Your task to perform on an android device: Go to calendar. Show me events next week Image 0: 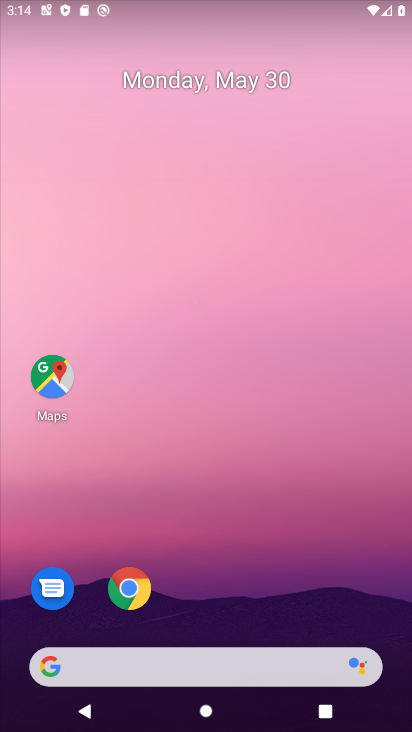
Step 0: drag from (271, 522) to (263, 6)
Your task to perform on an android device: Go to calendar. Show me events next week Image 1: 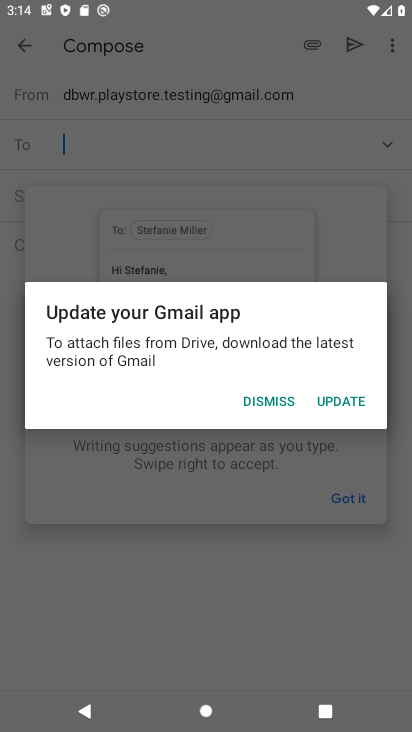
Step 1: drag from (12, 603) to (2, 309)
Your task to perform on an android device: Go to calendar. Show me events next week Image 2: 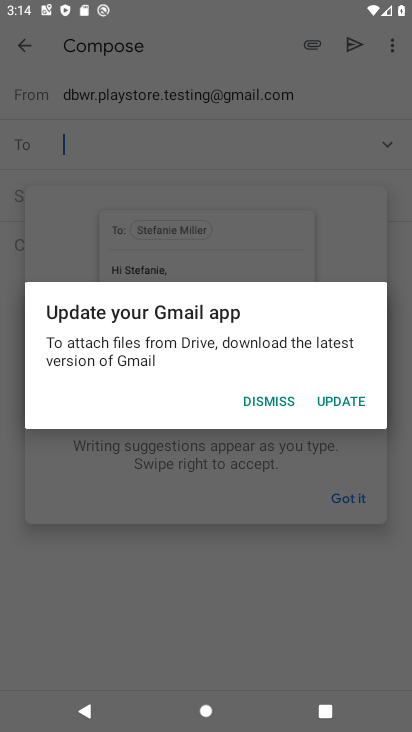
Step 2: press back button
Your task to perform on an android device: Go to calendar. Show me events next week Image 3: 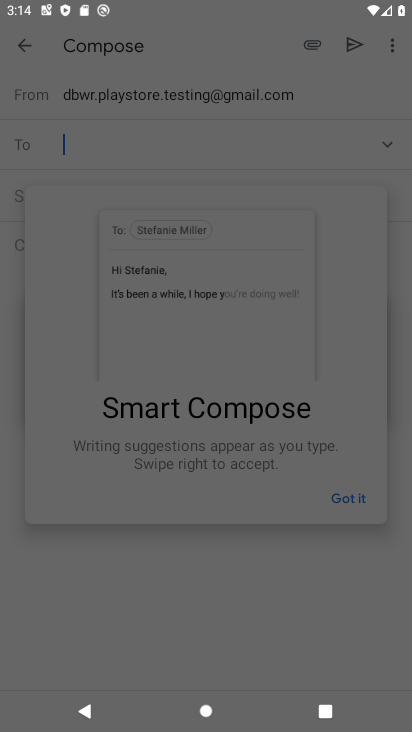
Step 3: press back button
Your task to perform on an android device: Go to calendar. Show me events next week Image 4: 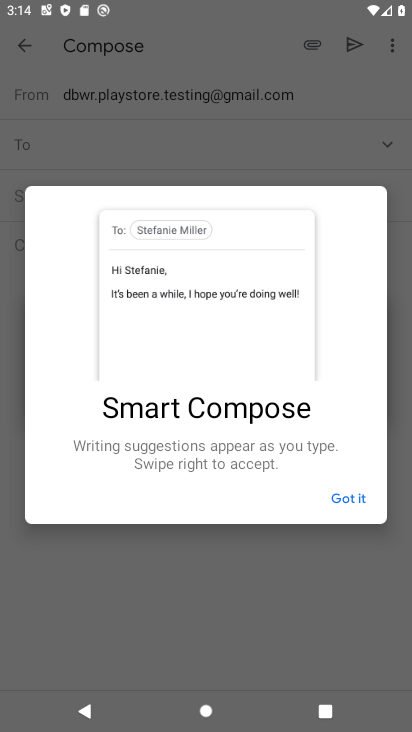
Step 4: press home button
Your task to perform on an android device: Go to calendar. Show me events next week Image 5: 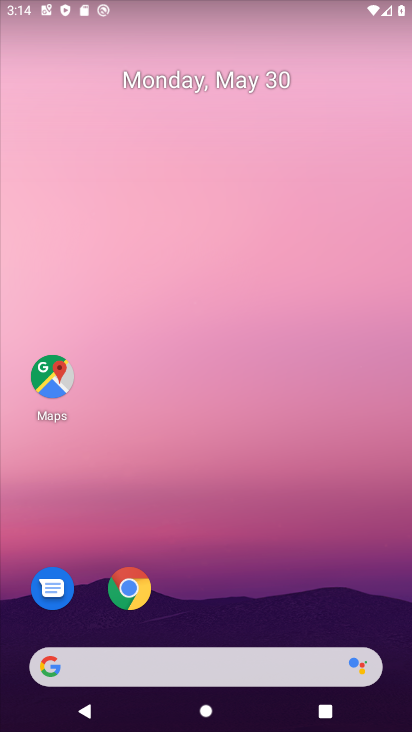
Step 5: drag from (260, 593) to (243, 36)
Your task to perform on an android device: Go to calendar. Show me events next week Image 6: 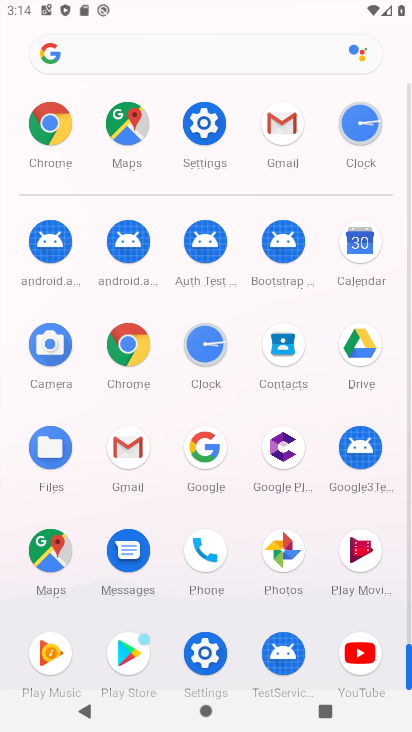
Step 6: drag from (8, 591) to (25, 387)
Your task to perform on an android device: Go to calendar. Show me events next week Image 7: 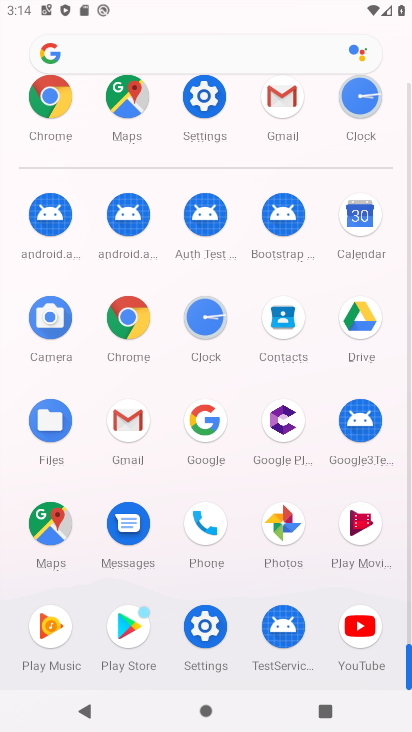
Step 7: click (357, 212)
Your task to perform on an android device: Go to calendar. Show me events next week Image 8: 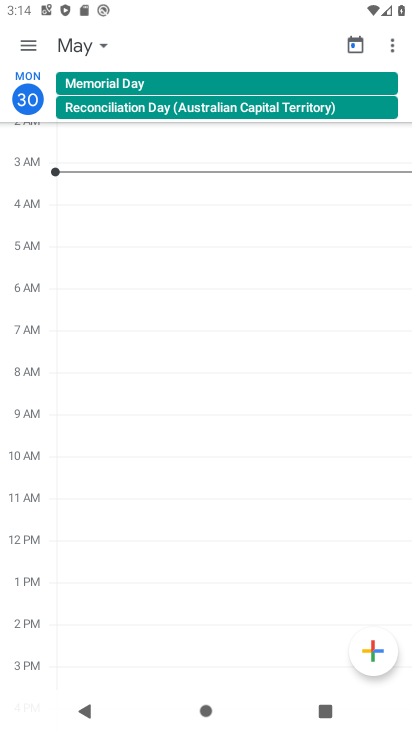
Step 8: click (35, 41)
Your task to perform on an android device: Go to calendar. Show me events next week Image 9: 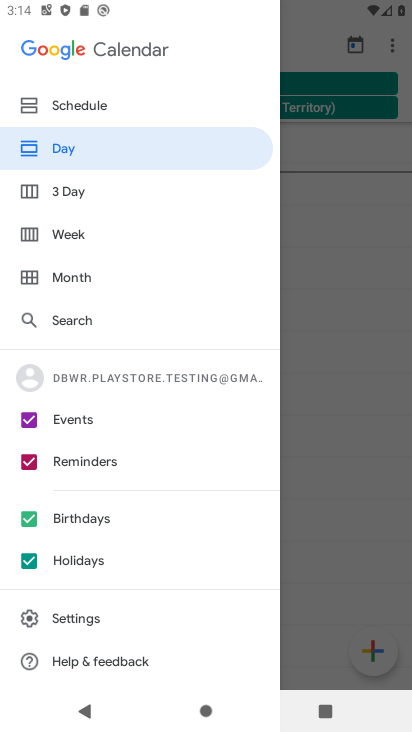
Step 9: drag from (166, 161) to (207, 526)
Your task to perform on an android device: Go to calendar. Show me events next week Image 10: 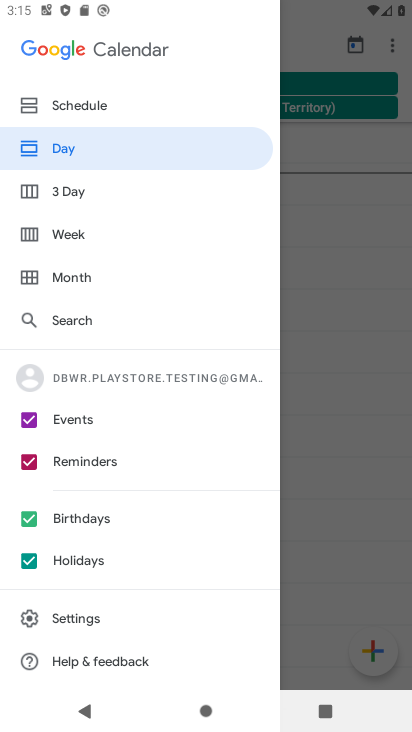
Step 10: click (81, 229)
Your task to perform on an android device: Go to calendar. Show me events next week Image 11: 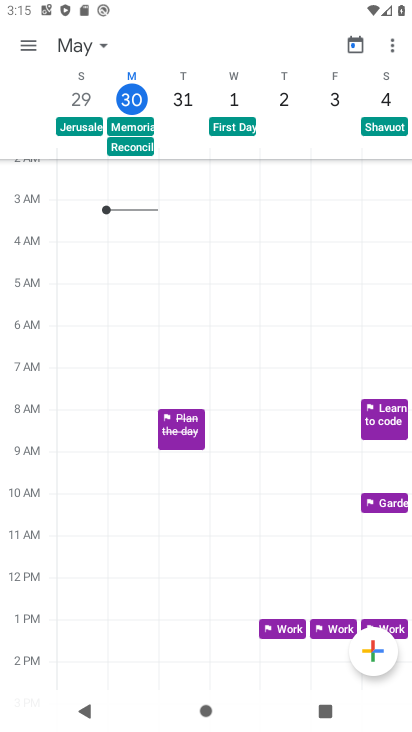
Step 11: task complete